Your task to perform on an android device: Open calendar and show me the first week of next month Image 0: 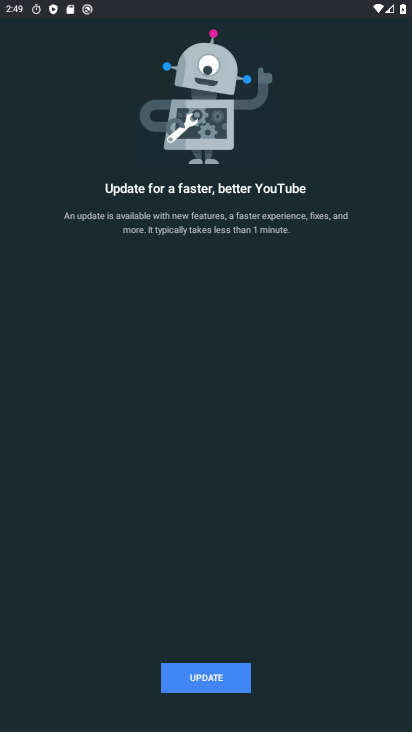
Step 0: press home button
Your task to perform on an android device: Open calendar and show me the first week of next month Image 1: 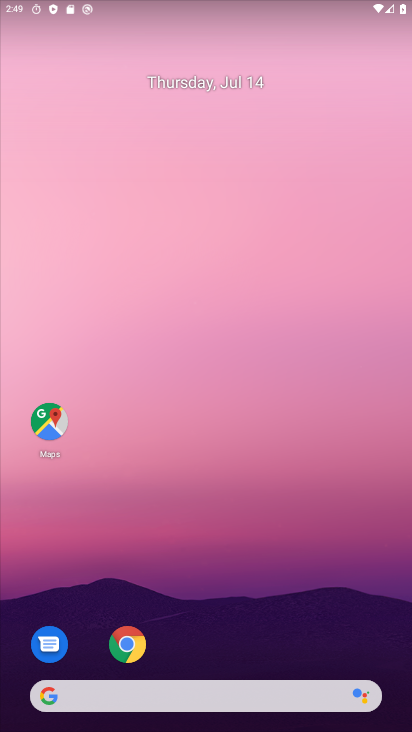
Step 1: drag from (16, 711) to (210, 8)
Your task to perform on an android device: Open calendar and show me the first week of next month Image 2: 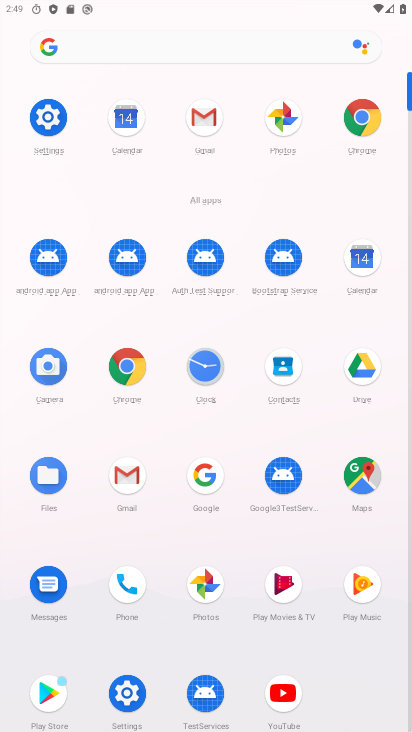
Step 2: click (365, 265)
Your task to perform on an android device: Open calendar and show me the first week of next month Image 3: 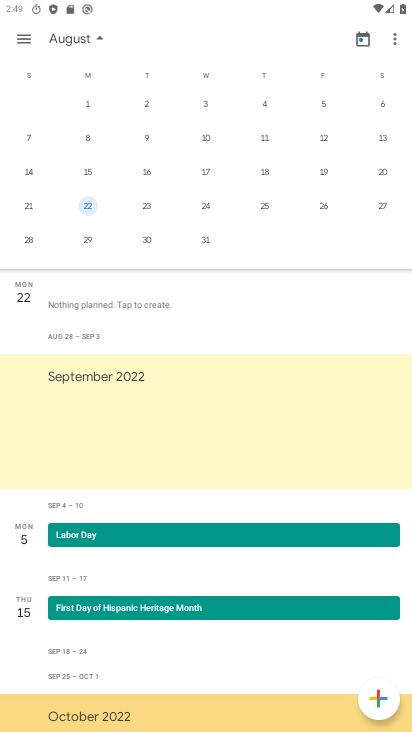
Step 3: click (91, 103)
Your task to perform on an android device: Open calendar and show me the first week of next month Image 4: 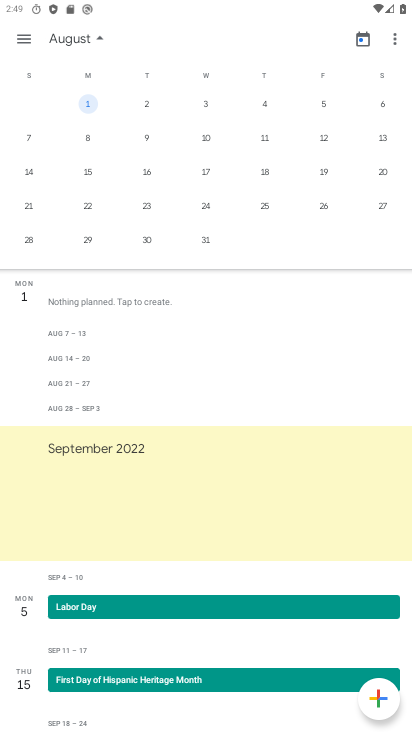
Step 4: task complete